Your task to perform on an android device: Go to ESPN.com Image 0: 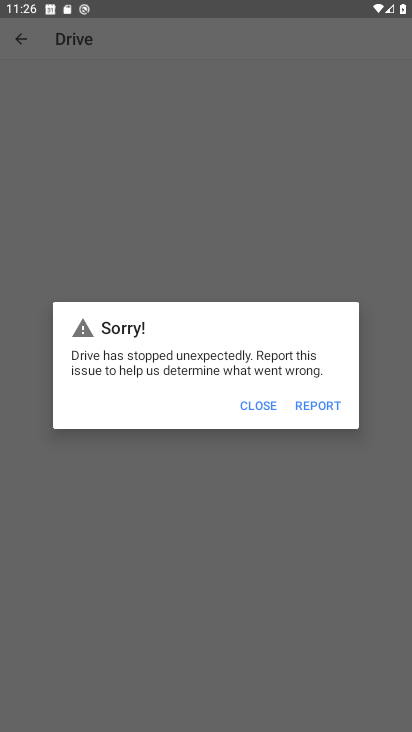
Step 0: press home button
Your task to perform on an android device: Go to ESPN.com Image 1: 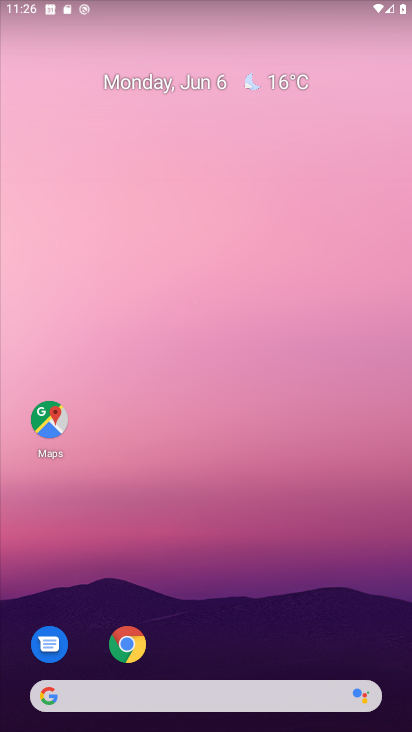
Step 1: click (130, 648)
Your task to perform on an android device: Go to ESPN.com Image 2: 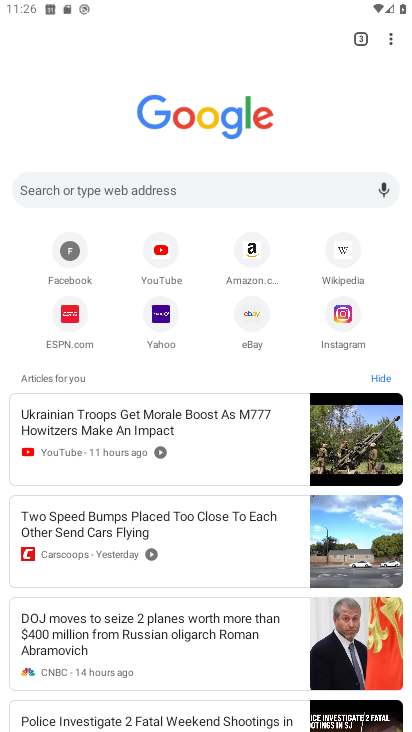
Step 2: click (63, 317)
Your task to perform on an android device: Go to ESPN.com Image 3: 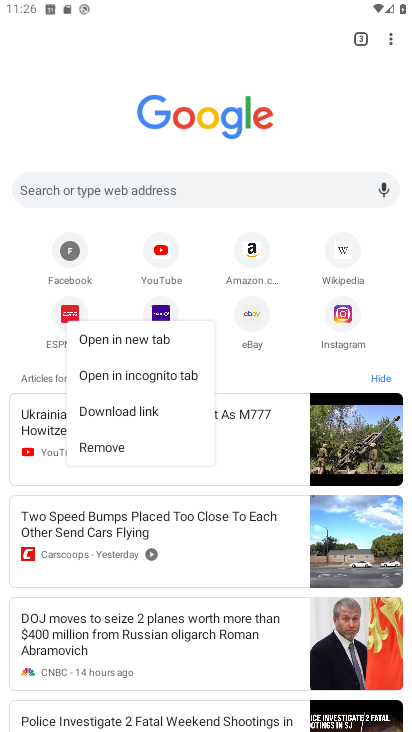
Step 3: click (63, 317)
Your task to perform on an android device: Go to ESPN.com Image 4: 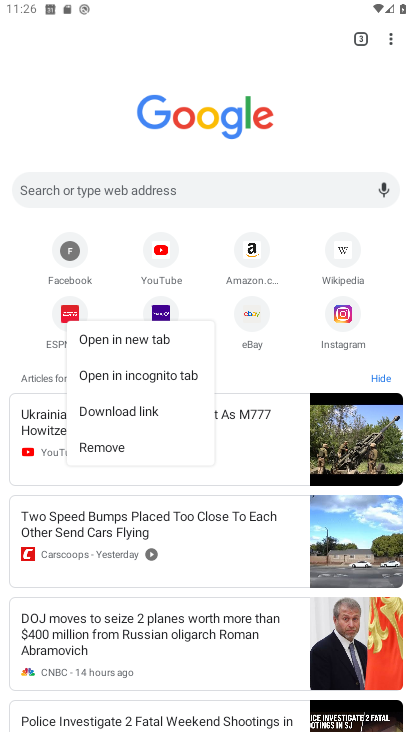
Step 4: click (64, 312)
Your task to perform on an android device: Go to ESPN.com Image 5: 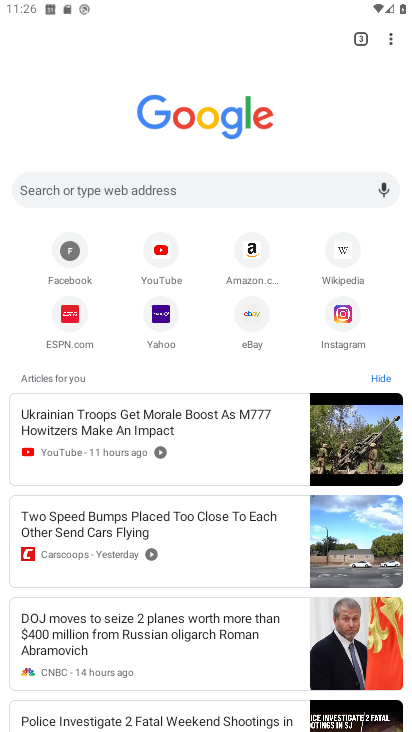
Step 5: click (76, 331)
Your task to perform on an android device: Go to ESPN.com Image 6: 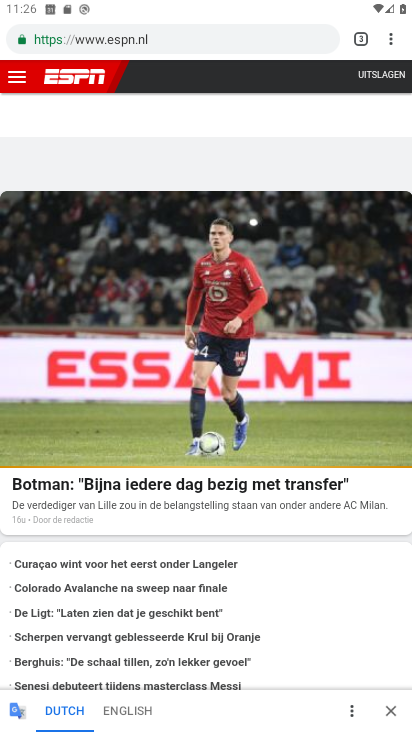
Step 6: task complete